Your task to perform on an android device: Clear the cart on ebay.com. Search for macbook air on ebay.com, select the first entry, and add it to the cart. Image 0: 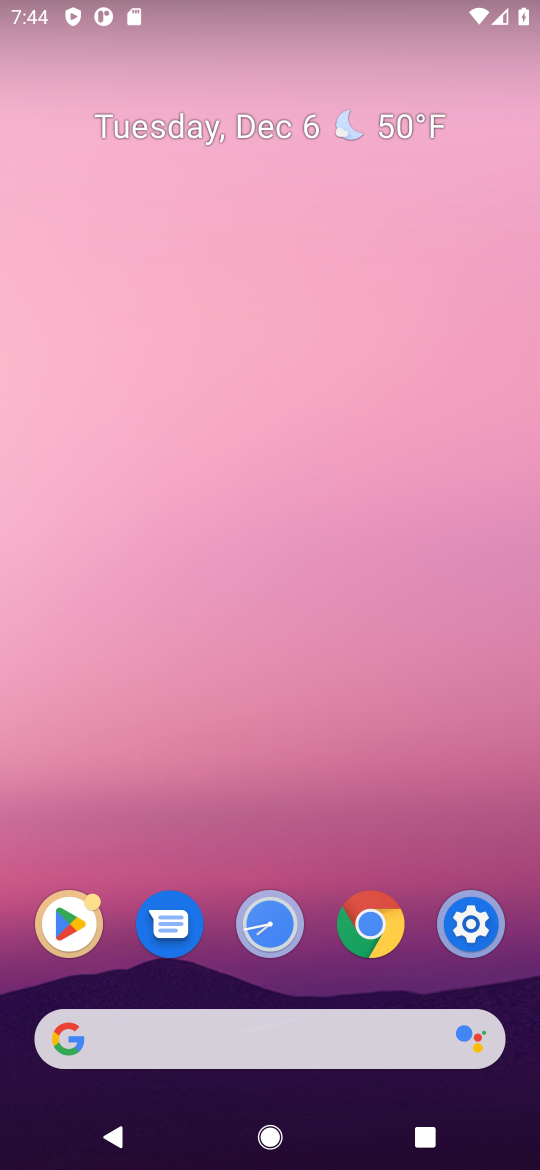
Step 0: click (211, 1022)
Your task to perform on an android device: Clear the cart on ebay.com. Search for macbook air on ebay.com, select the first entry, and add it to the cart. Image 1: 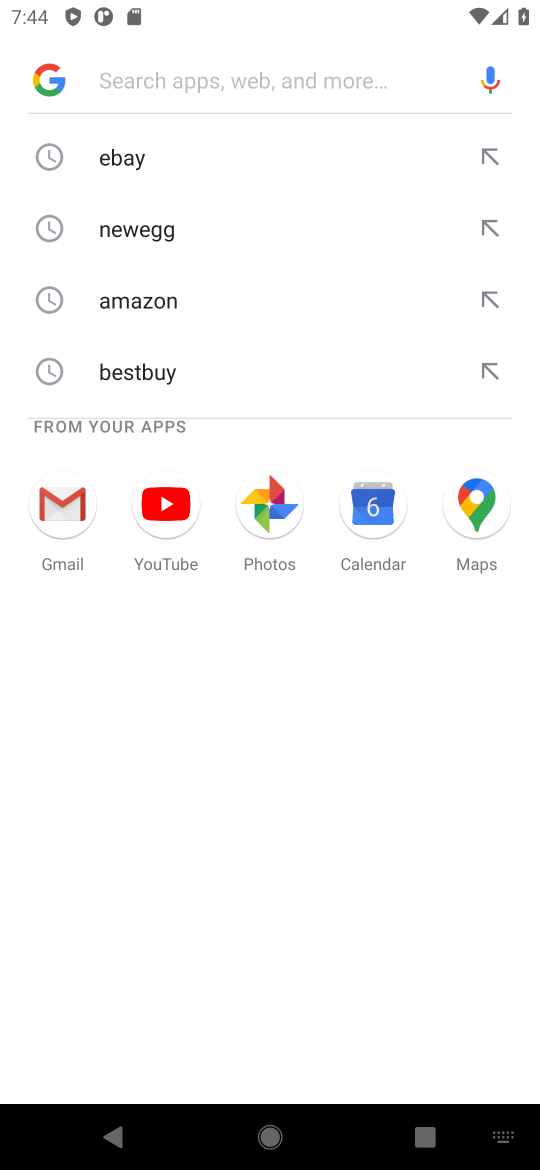
Step 1: type "ebay.com"
Your task to perform on an android device: Clear the cart on ebay.com. Search for macbook air on ebay.com, select the first entry, and add it to the cart. Image 2: 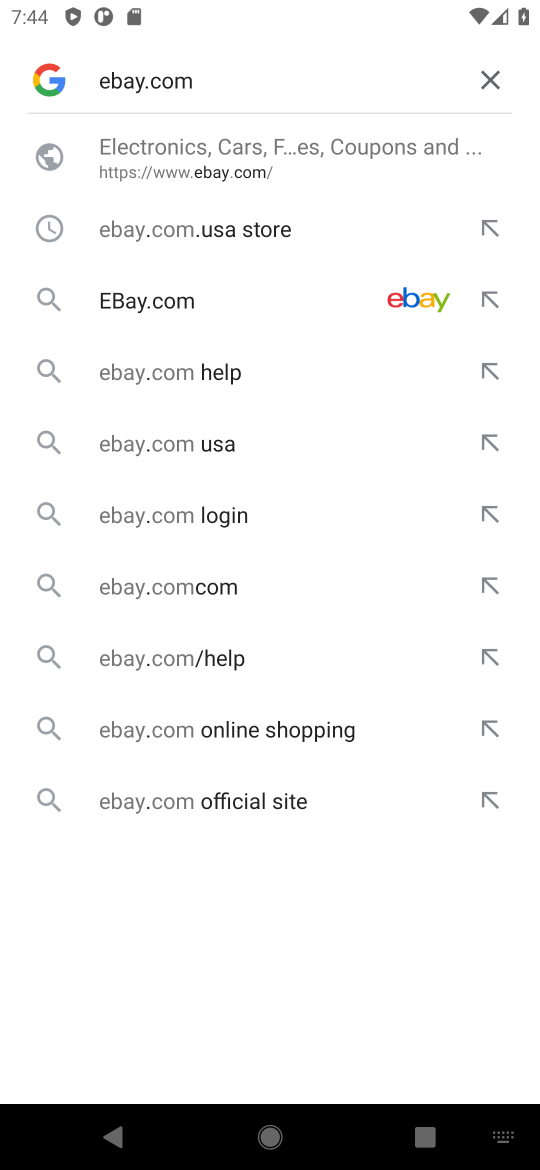
Step 2: click (169, 184)
Your task to perform on an android device: Clear the cart on ebay.com. Search for macbook air on ebay.com, select the first entry, and add it to the cart. Image 3: 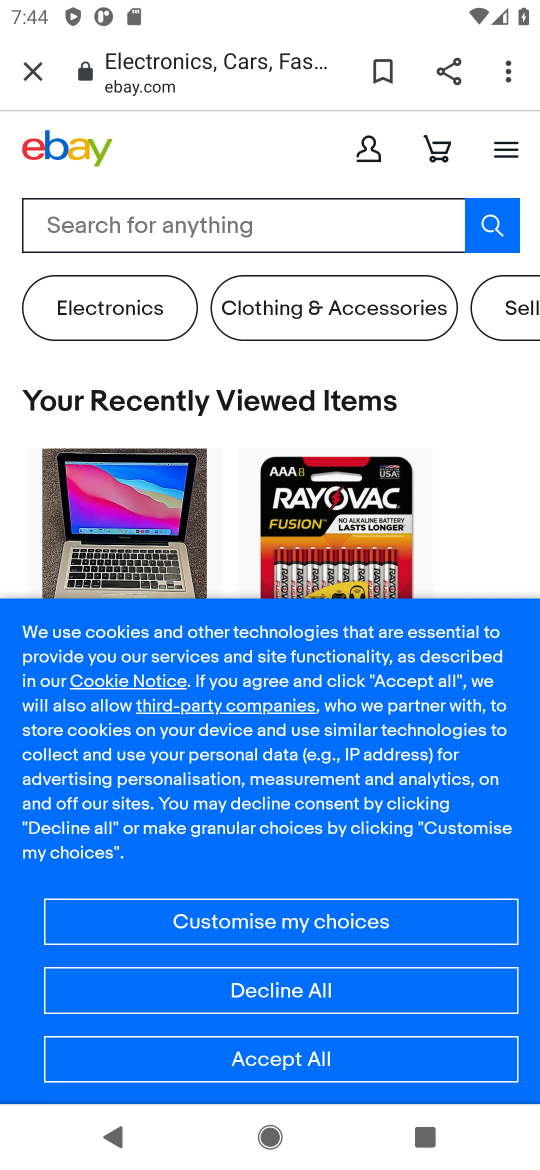
Step 3: click (275, 1071)
Your task to perform on an android device: Clear the cart on ebay.com. Search for macbook air on ebay.com, select the first entry, and add it to the cart. Image 4: 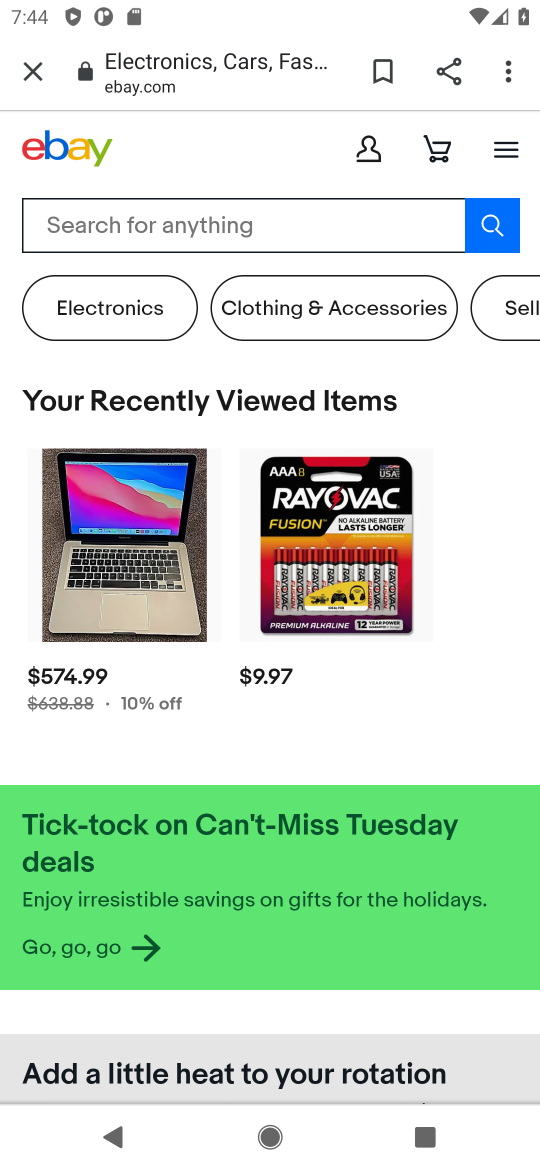
Step 4: click (274, 239)
Your task to perform on an android device: Clear the cart on ebay.com. Search for macbook air on ebay.com, select the first entry, and add it to the cart. Image 5: 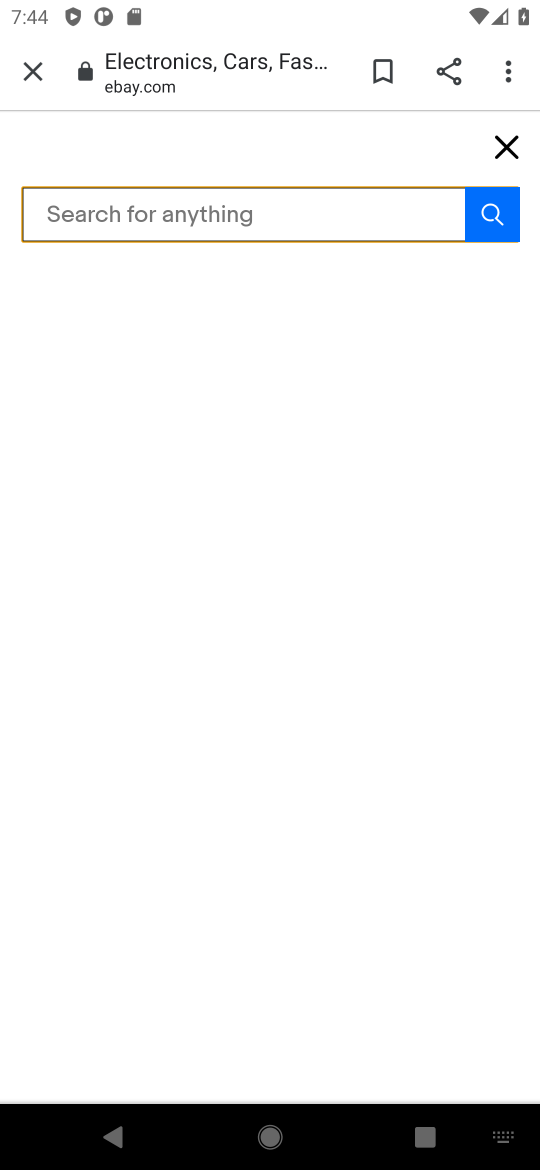
Step 5: type "macbook air "
Your task to perform on an android device: Clear the cart on ebay.com. Search for macbook air on ebay.com, select the first entry, and add it to the cart. Image 6: 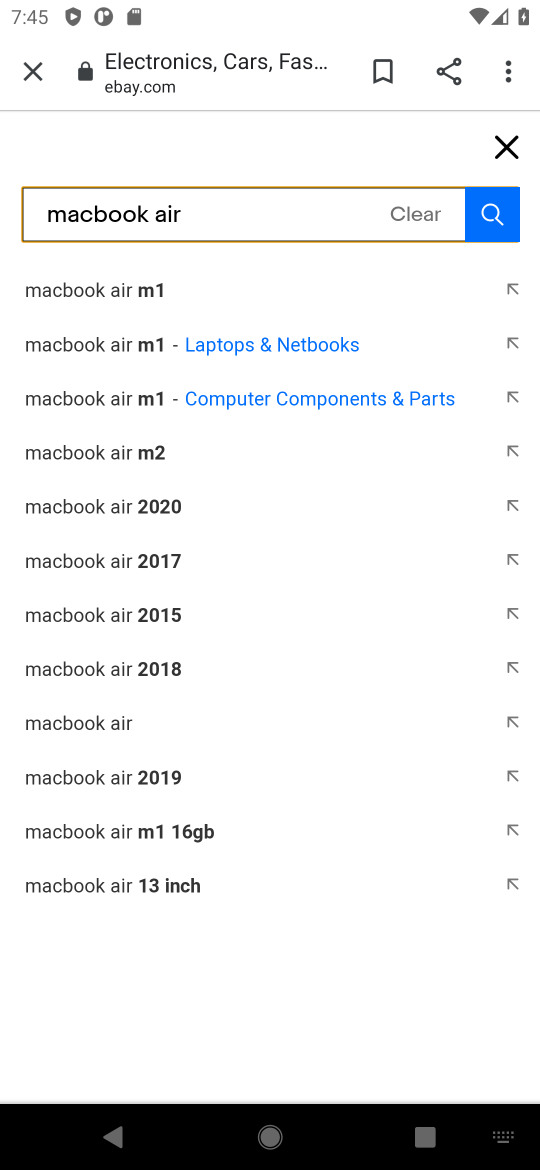
Step 6: click (42, 297)
Your task to perform on an android device: Clear the cart on ebay.com. Search for macbook air on ebay.com, select the first entry, and add it to the cart. Image 7: 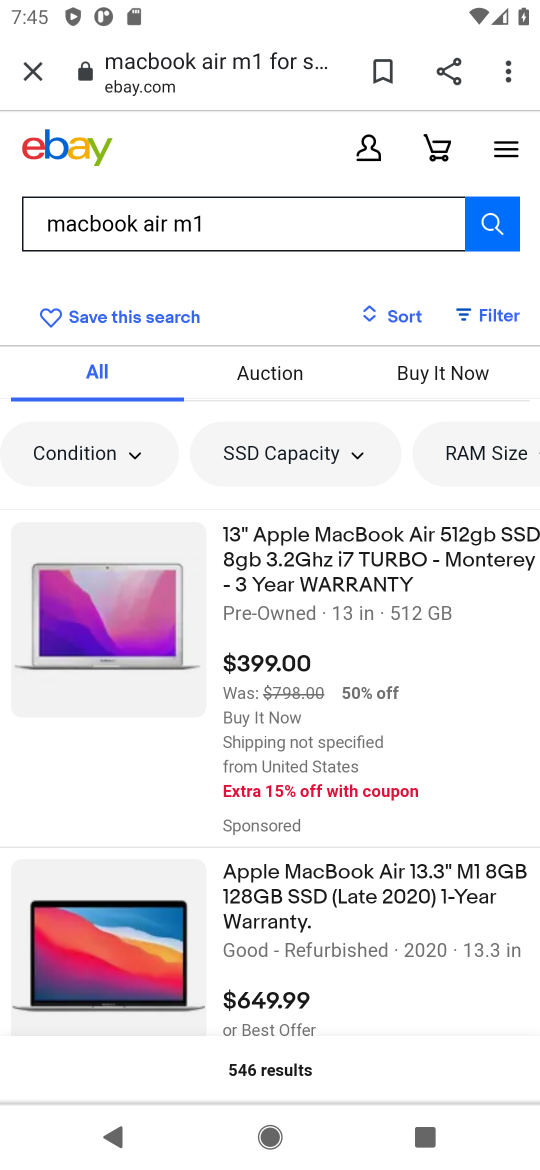
Step 7: click (371, 562)
Your task to perform on an android device: Clear the cart on ebay.com. Search for macbook air on ebay.com, select the first entry, and add it to the cart. Image 8: 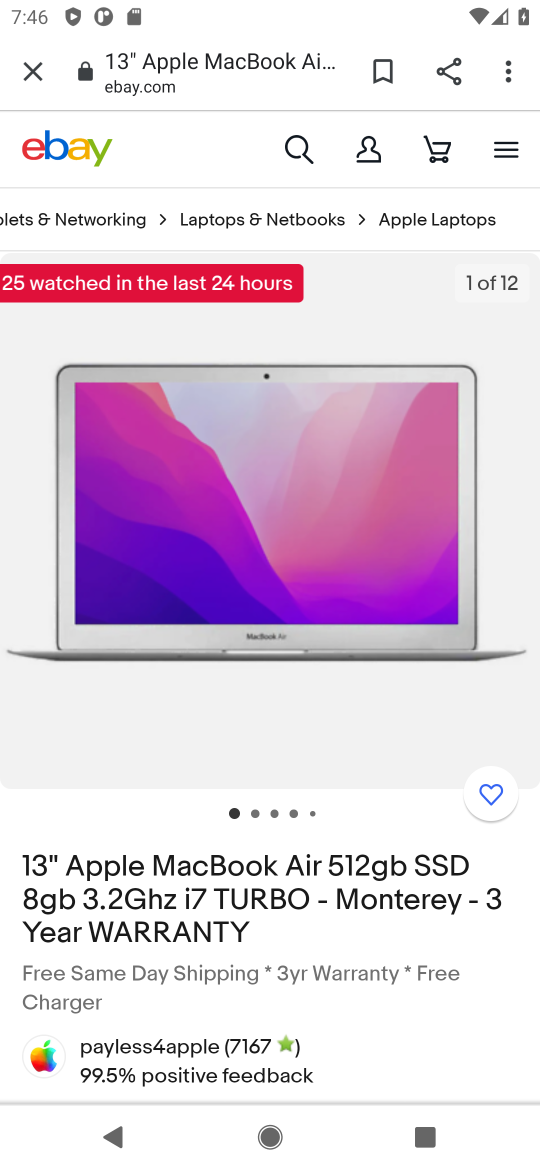
Step 8: task complete